Your task to perform on an android device: check android version Image 0: 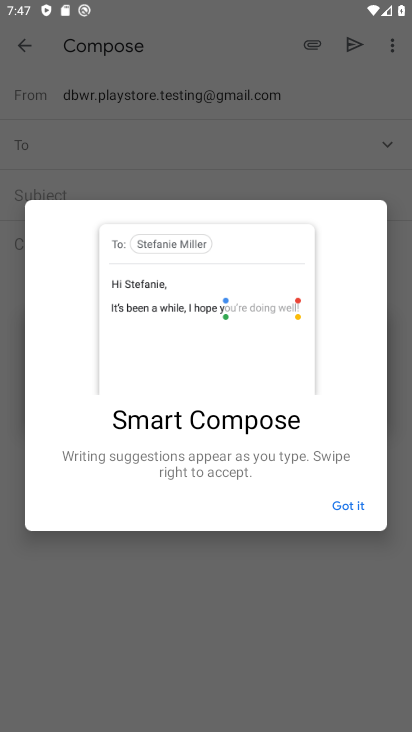
Step 0: press home button
Your task to perform on an android device: check android version Image 1: 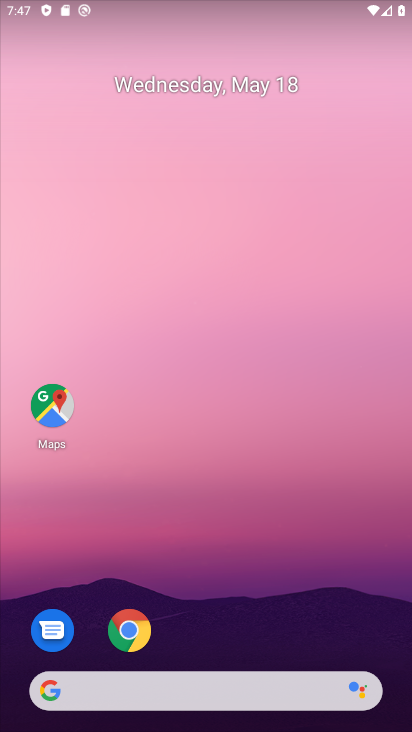
Step 1: drag from (222, 598) to (82, 121)
Your task to perform on an android device: check android version Image 2: 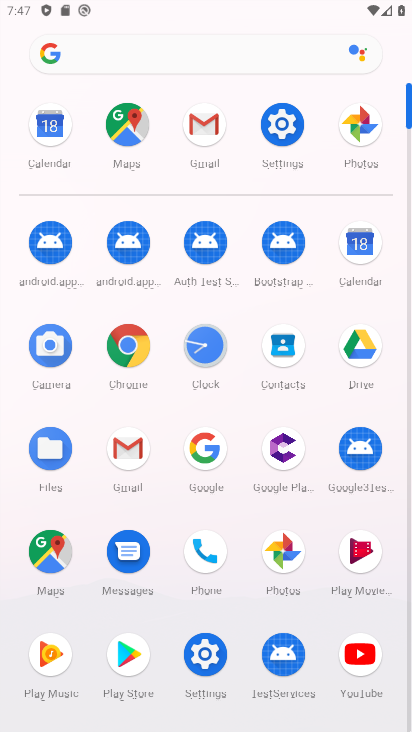
Step 2: click (280, 119)
Your task to perform on an android device: check android version Image 3: 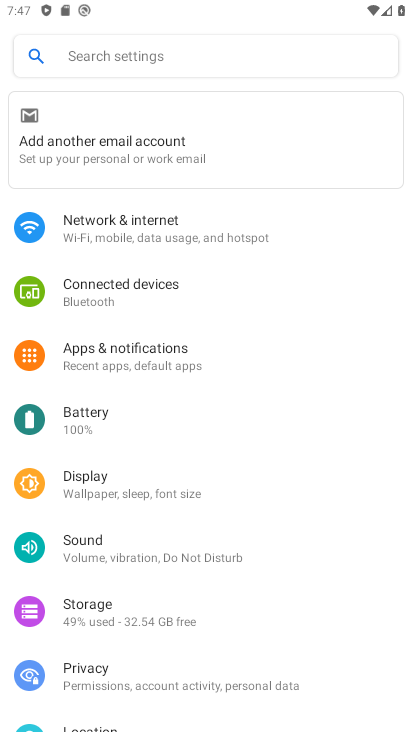
Step 3: drag from (289, 561) to (193, 66)
Your task to perform on an android device: check android version Image 4: 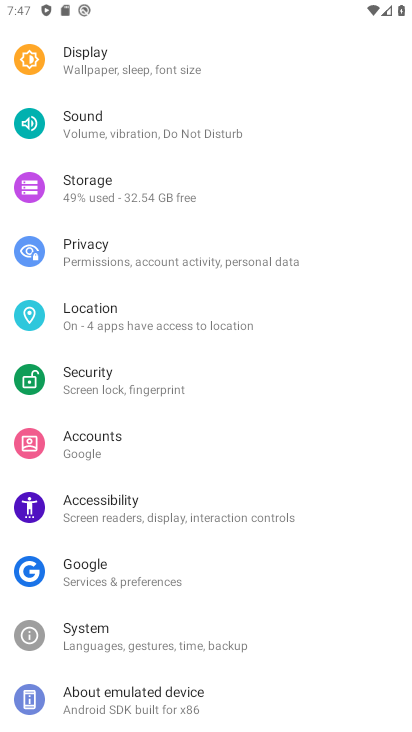
Step 4: drag from (291, 605) to (224, 208)
Your task to perform on an android device: check android version Image 5: 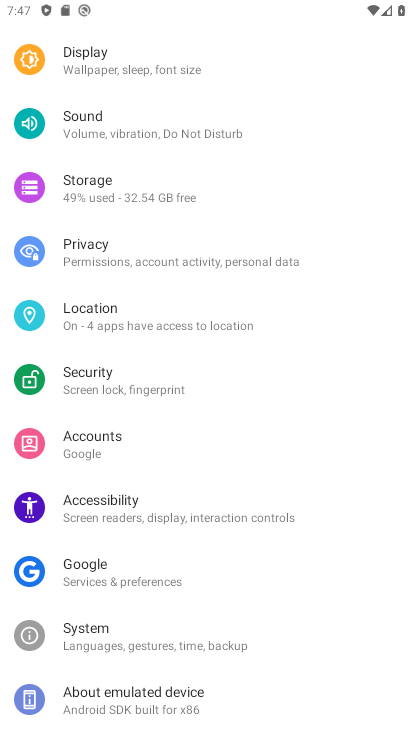
Step 5: click (99, 687)
Your task to perform on an android device: check android version Image 6: 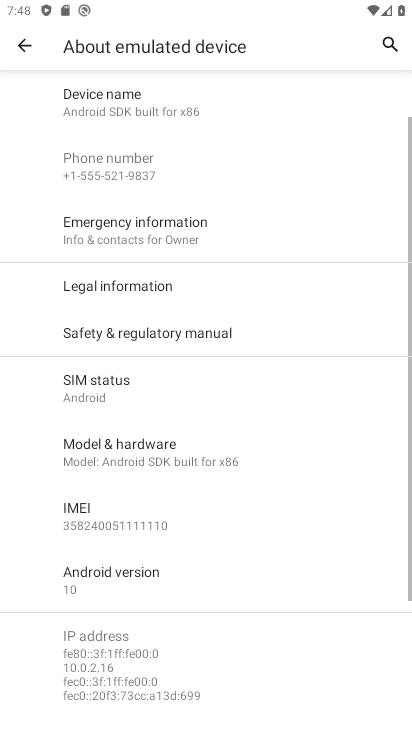
Step 6: task complete